Your task to perform on an android device: choose inbox layout in the gmail app Image 0: 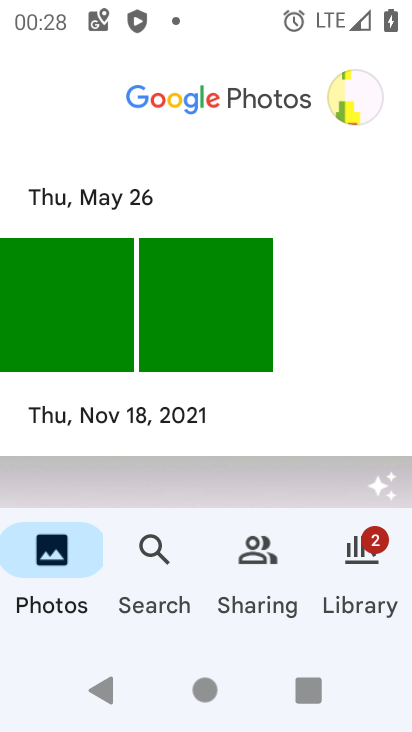
Step 0: press home button
Your task to perform on an android device: choose inbox layout in the gmail app Image 1: 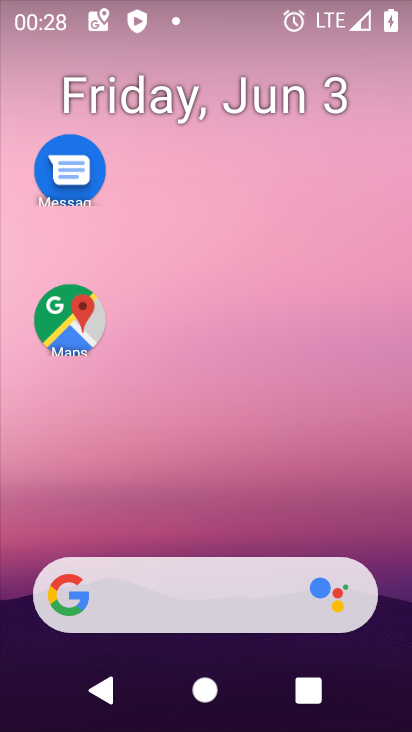
Step 1: drag from (186, 452) to (165, 87)
Your task to perform on an android device: choose inbox layout in the gmail app Image 2: 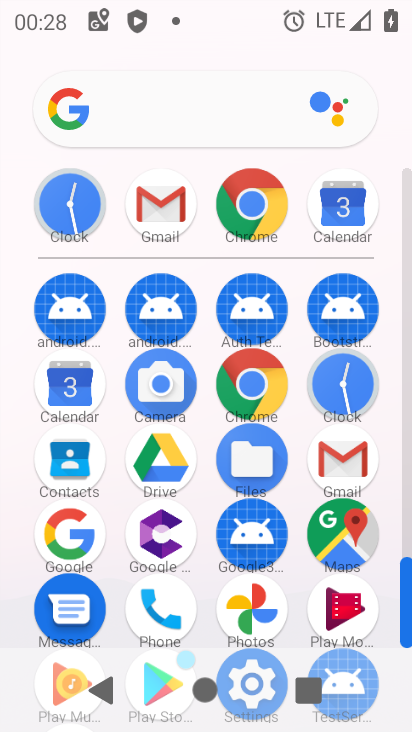
Step 2: click (240, 191)
Your task to perform on an android device: choose inbox layout in the gmail app Image 3: 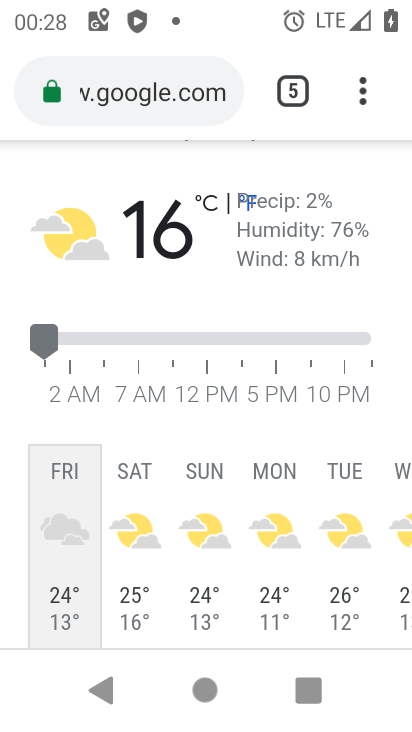
Step 3: click (354, 74)
Your task to perform on an android device: choose inbox layout in the gmail app Image 4: 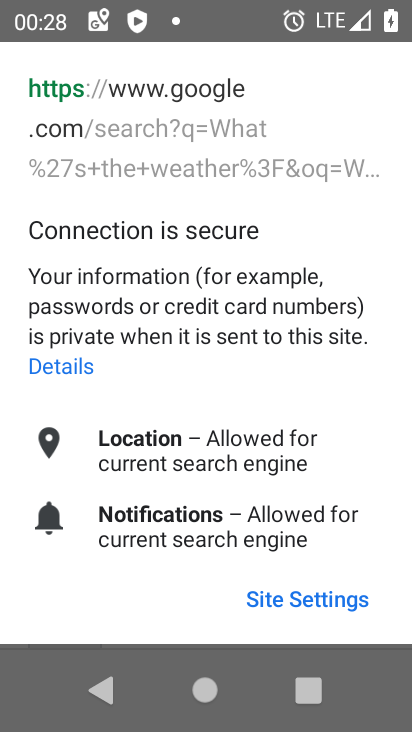
Step 4: press home button
Your task to perform on an android device: choose inbox layout in the gmail app Image 5: 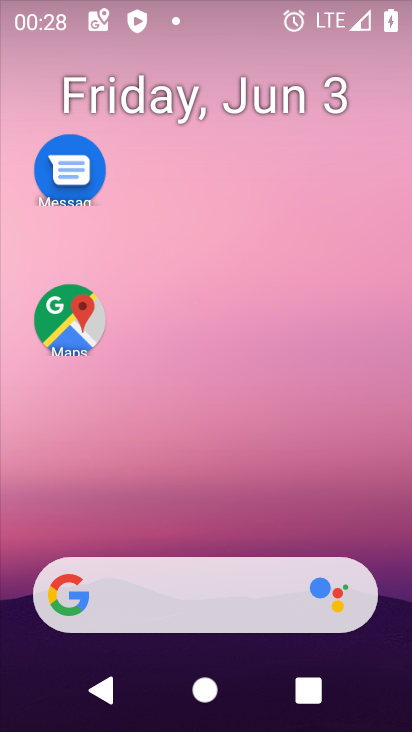
Step 5: drag from (320, 547) to (300, 65)
Your task to perform on an android device: choose inbox layout in the gmail app Image 6: 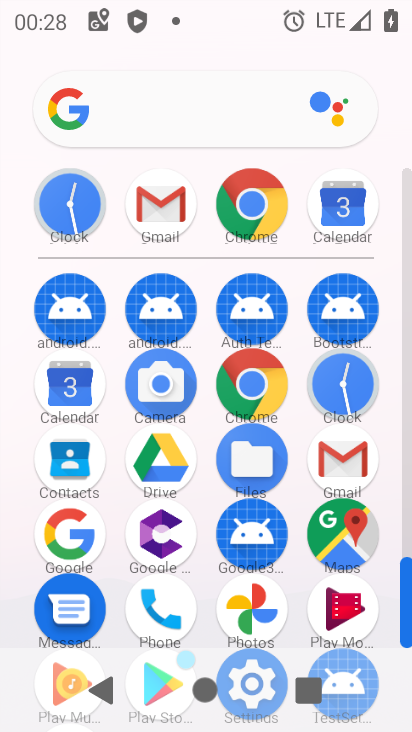
Step 6: click (177, 205)
Your task to perform on an android device: choose inbox layout in the gmail app Image 7: 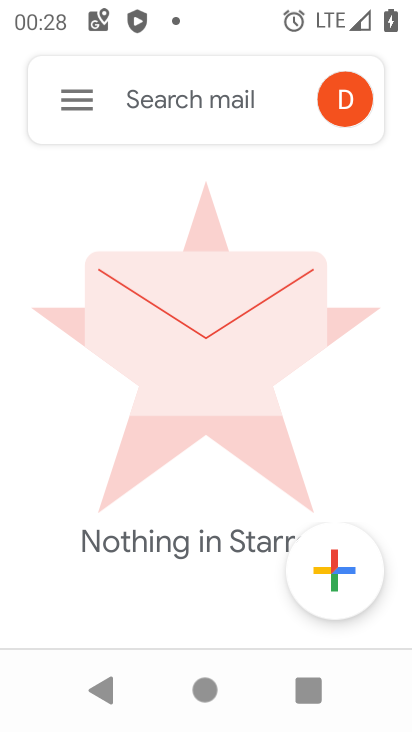
Step 7: click (81, 109)
Your task to perform on an android device: choose inbox layout in the gmail app Image 8: 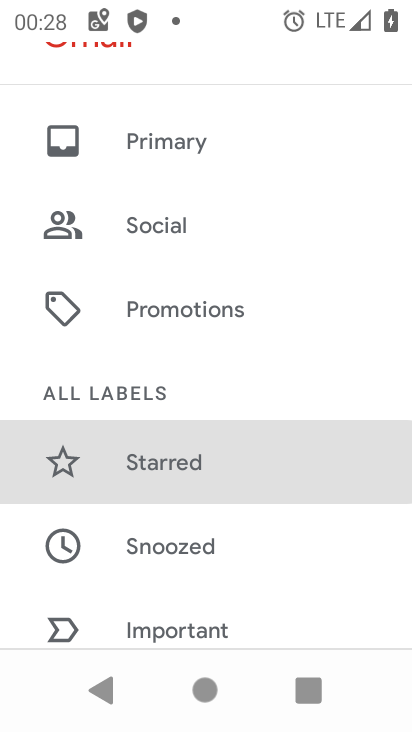
Step 8: drag from (188, 517) to (177, 185)
Your task to perform on an android device: choose inbox layout in the gmail app Image 9: 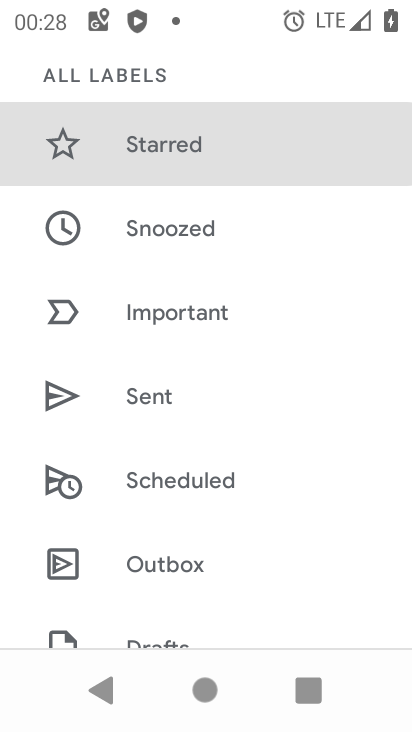
Step 9: drag from (179, 528) to (183, 135)
Your task to perform on an android device: choose inbox layout in the gmail app Image 10: 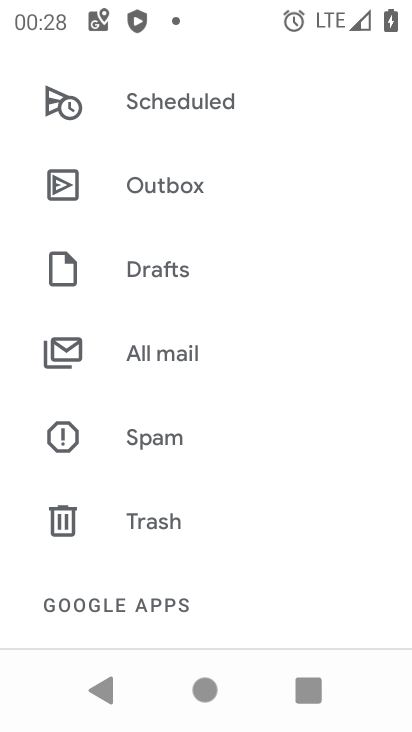
Step 10: drag from (153, 363) to (176, 234)
Your task to perform on an android device: choose inbox layout in the gmail app Image 11: 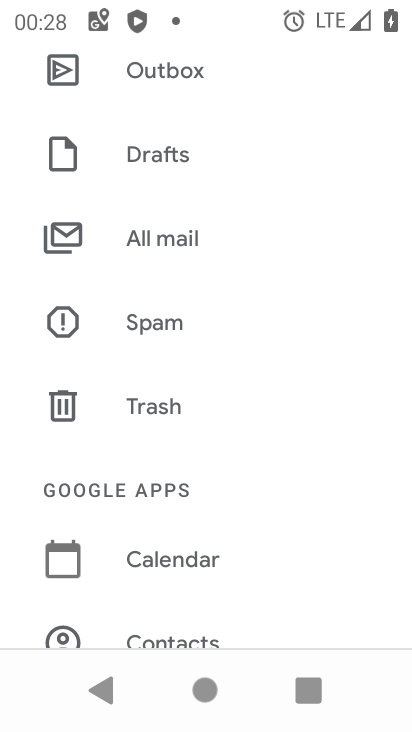
Step 11: drag from (152, 605) to (166, 484)
Your task to perform on an android device: choose inbox layout in the gmail app Image 12: 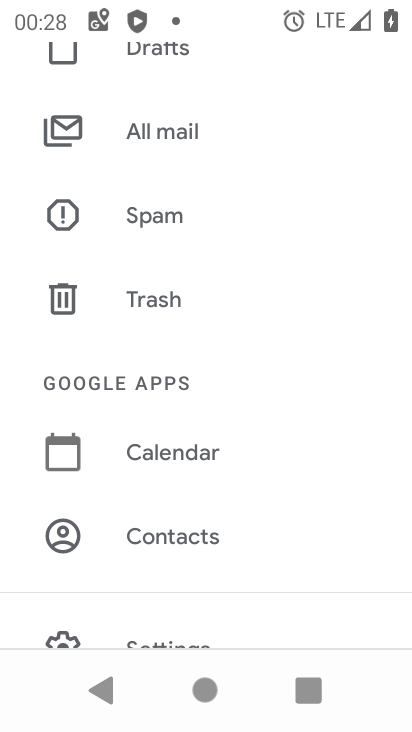
Step 12: drag from (171, 594) to (186, 307)
Your task to perform on an android device: choose inbox layout in the gmail app Image 13: 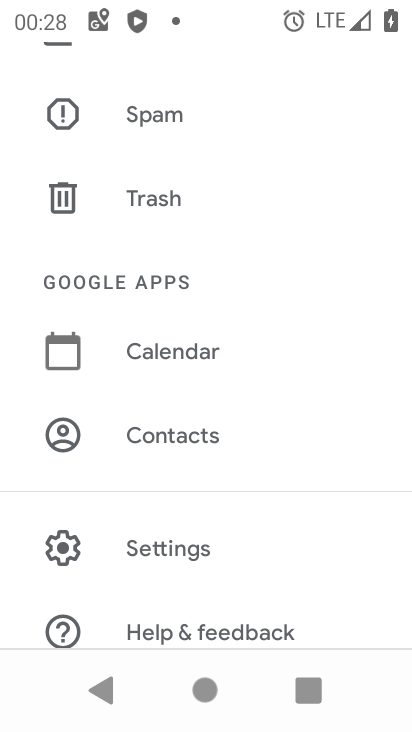
Step 13: click (181, 545)
Your task to perform on an android device: choose inbox layout in the gmail app Image 14: 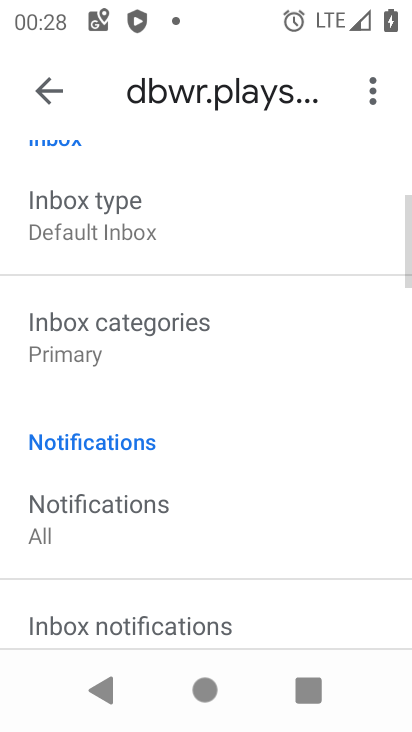
Step 14: click (89, 231)
Your task to perform on an android device: choose inbox layout in the gmail app Image 15: 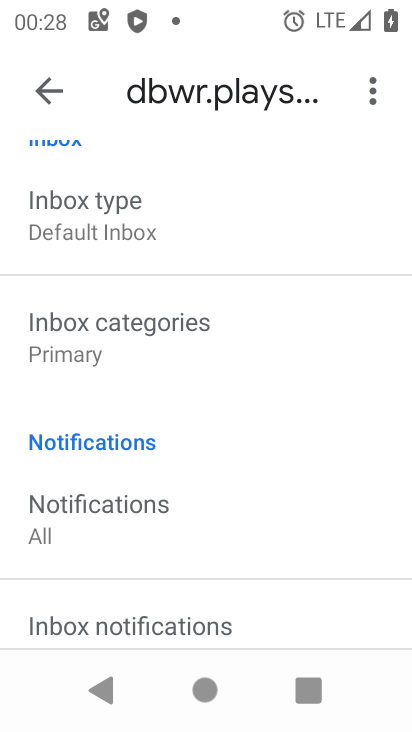
Step 15: click (89, 231)
Your task to perform on an android device: choose inbox layout in the gmail app Image 16: 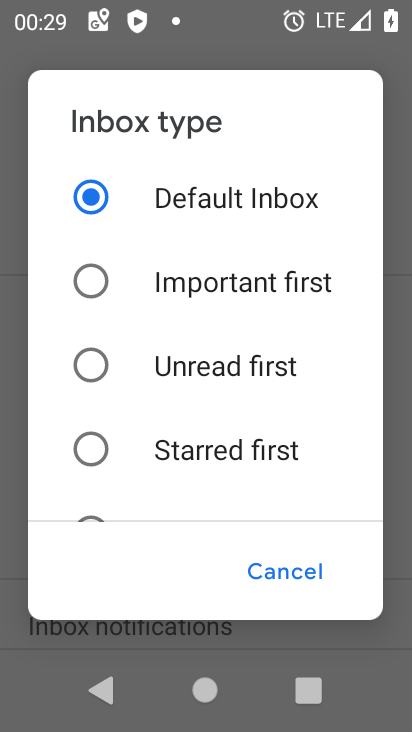
Step 16: click (104, 286)
Your task to perform on an android device: choose inbox layout in the gmail app Image 17: 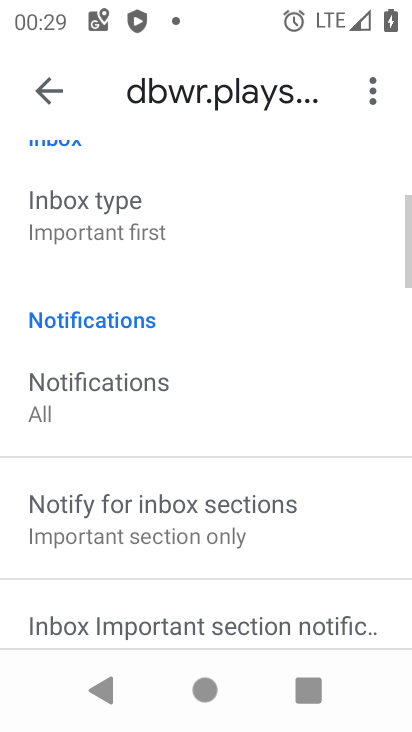
Step 17: task complete